Your task to perform on an android device: Open Google Maps and go to "Timeline" Image 0: 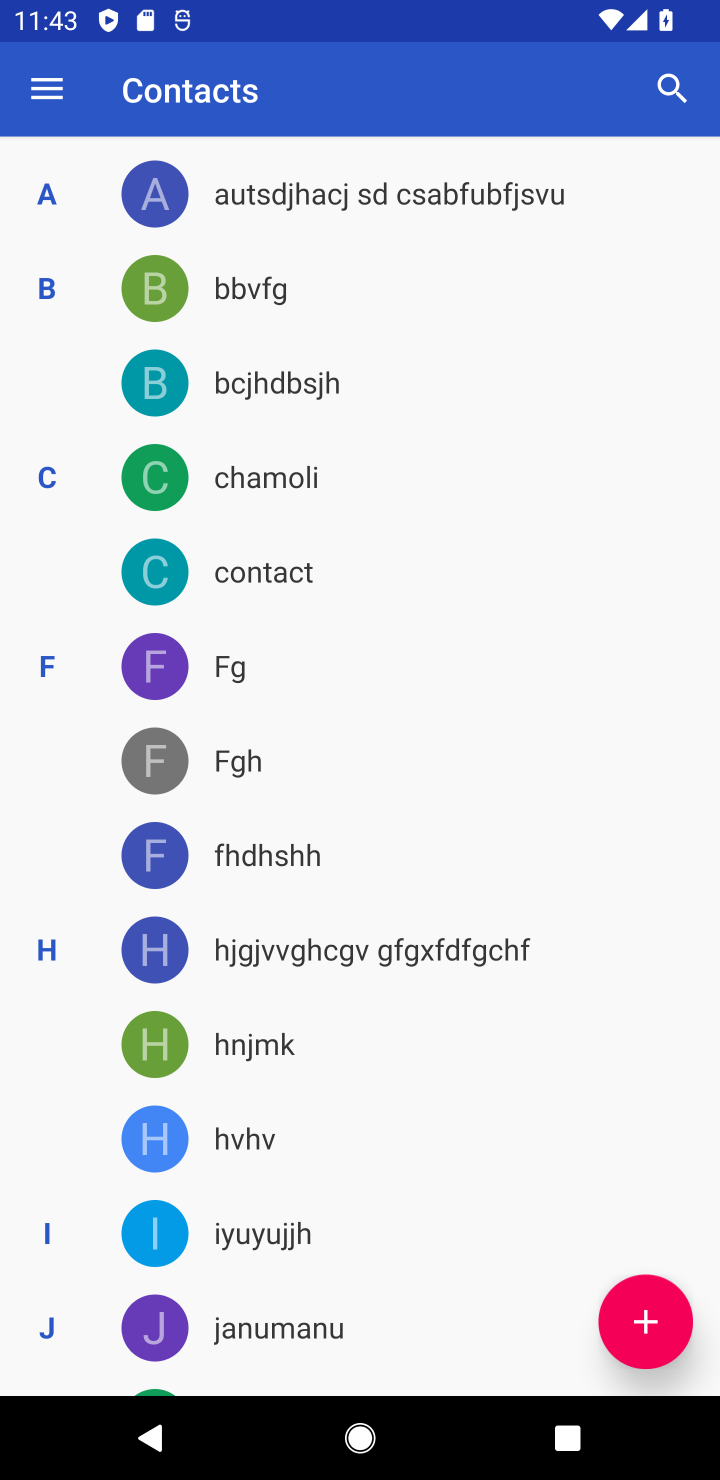
Step 0: press home button
Your task to perform on an android device: Open Google Maps and go to "Timeline" Image 1: 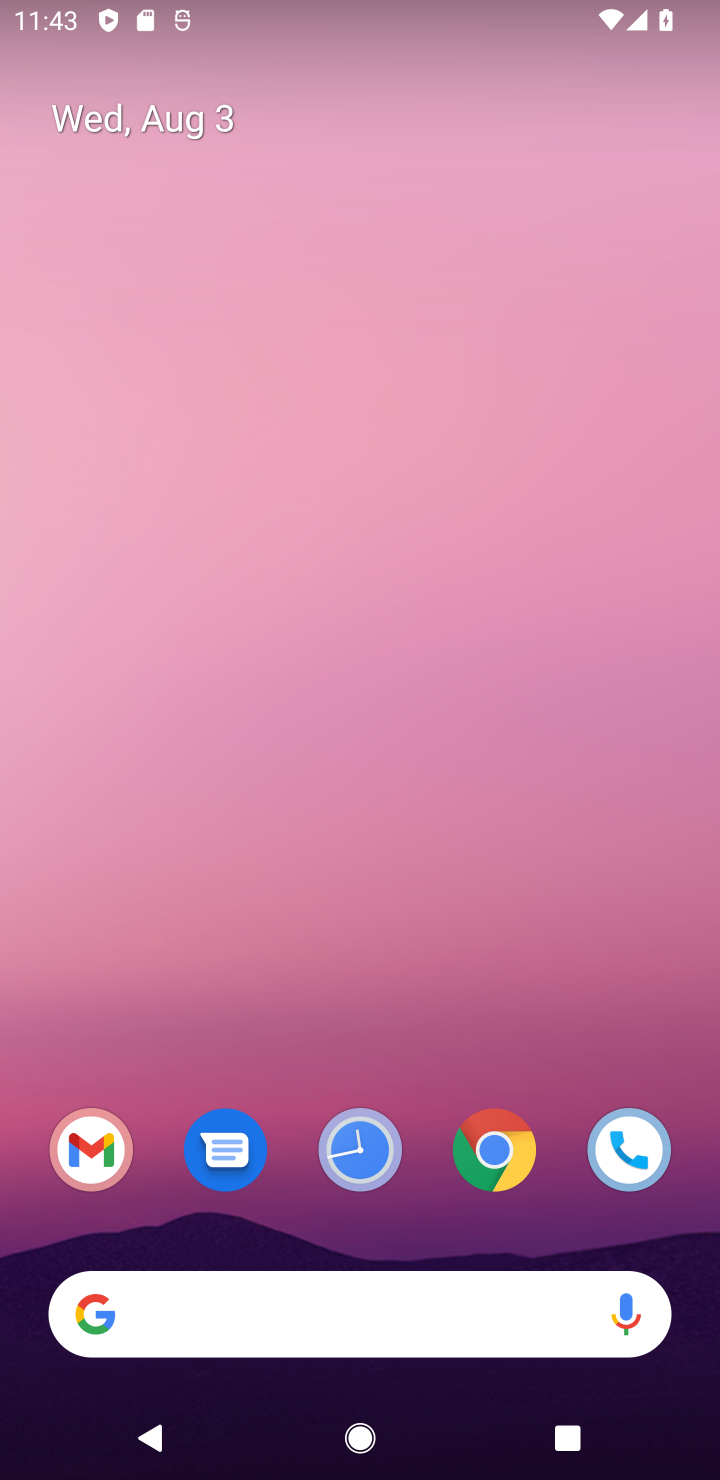
Step 1: drag from (549, 1076) to (549, 255)
Your task to perform on an android device: Open Google Maps and go to "Timeline" Image 2: 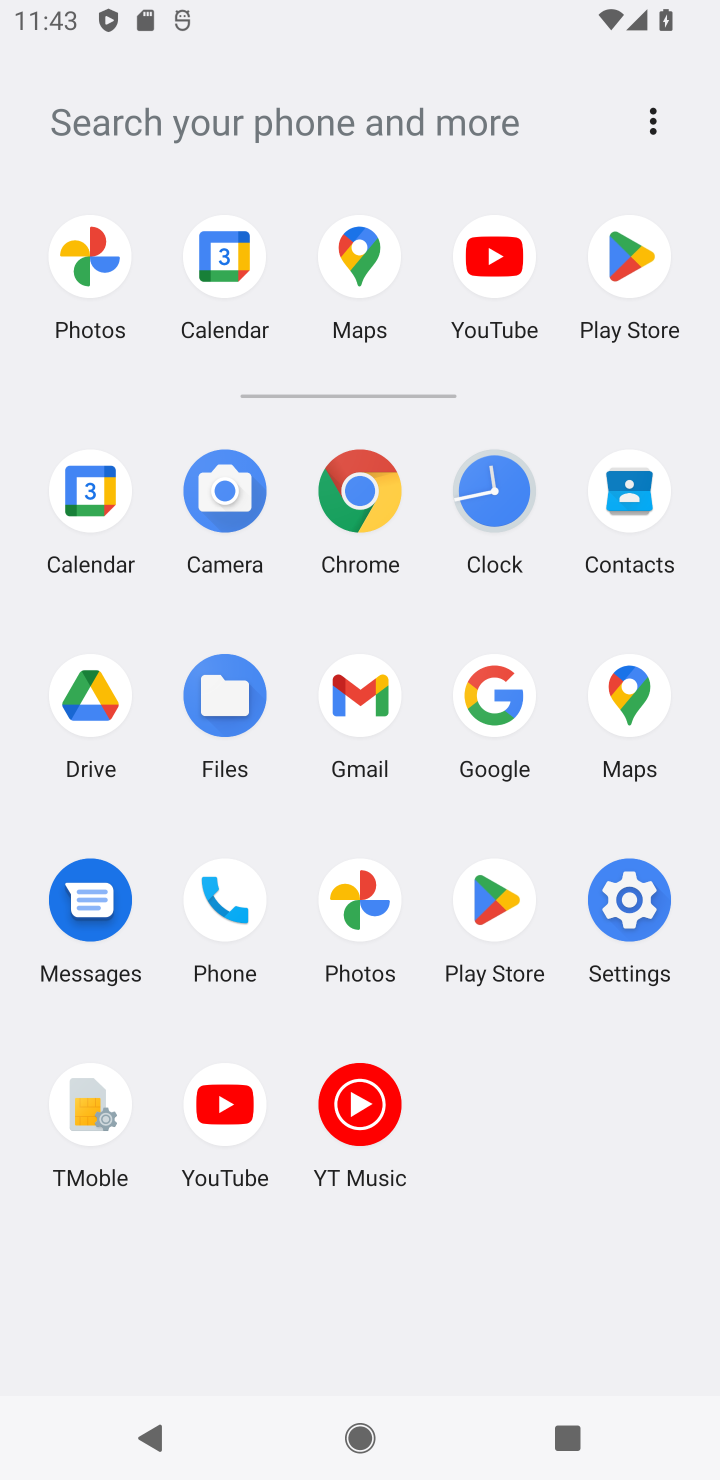
Step 2: click (629, 695)
Your task to perform on an android device: Open Google Maps and go to "Timeline" Image 3: 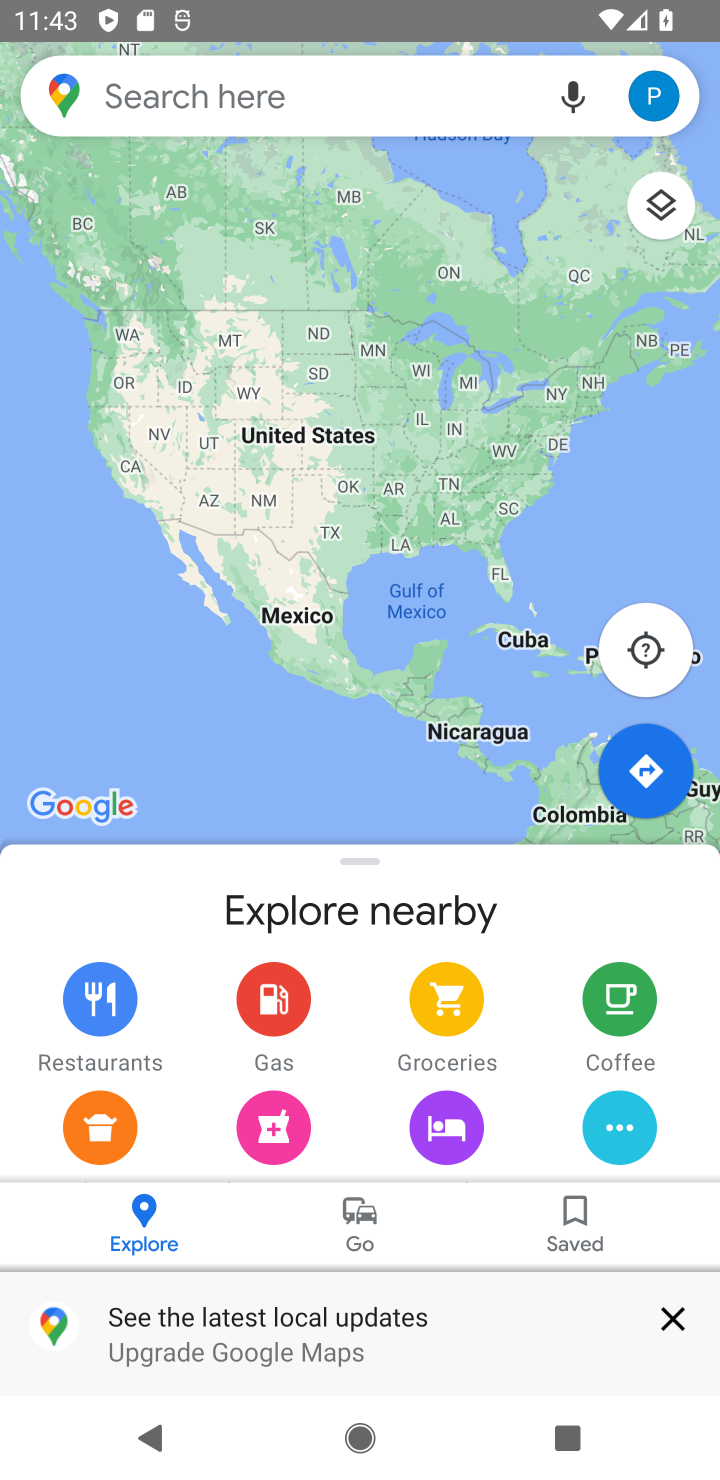
Step 3: click (643, 95)
Your task to perform on an android device: Open Google Maps and go to "Timeline" Image 4: 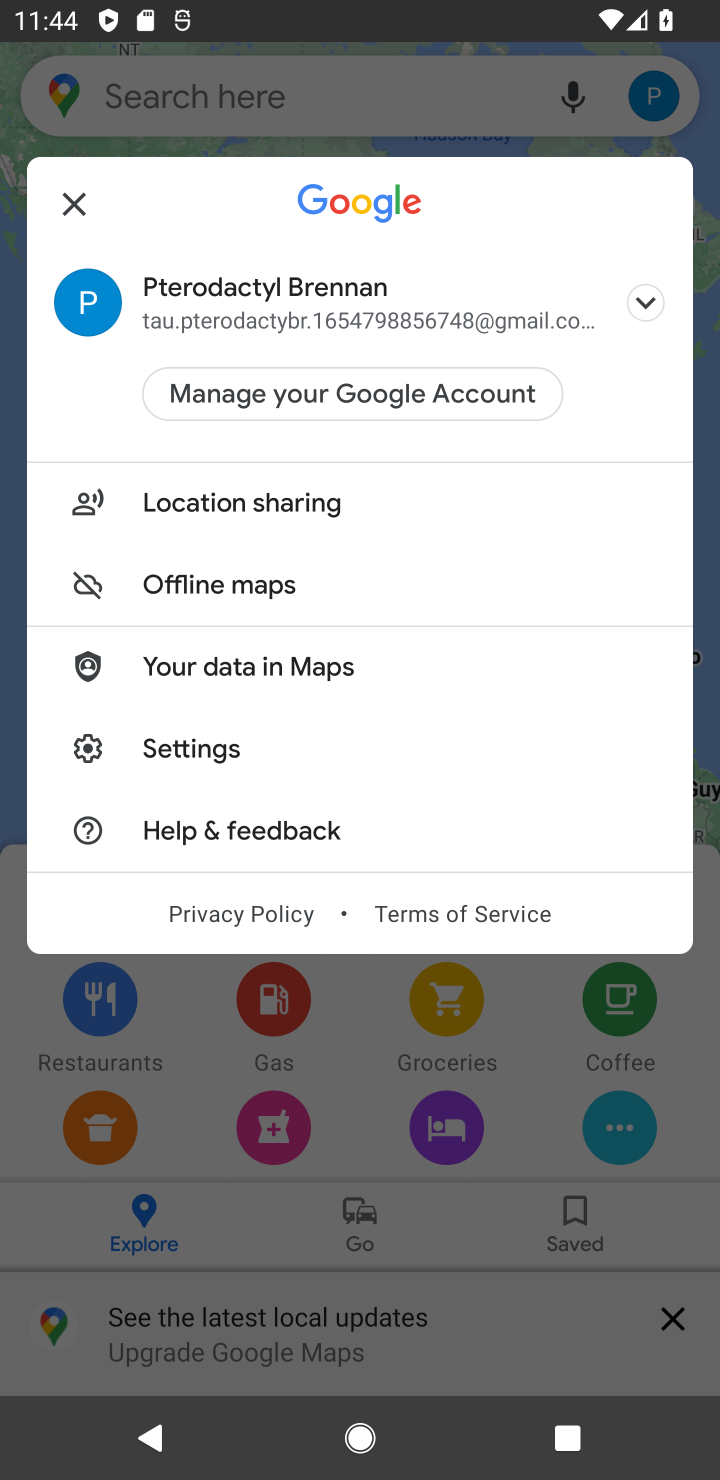
Step 4: click (217, 753)
Your task to perform on an android device: Open Google Maps and go to "Timeline" Image 5: 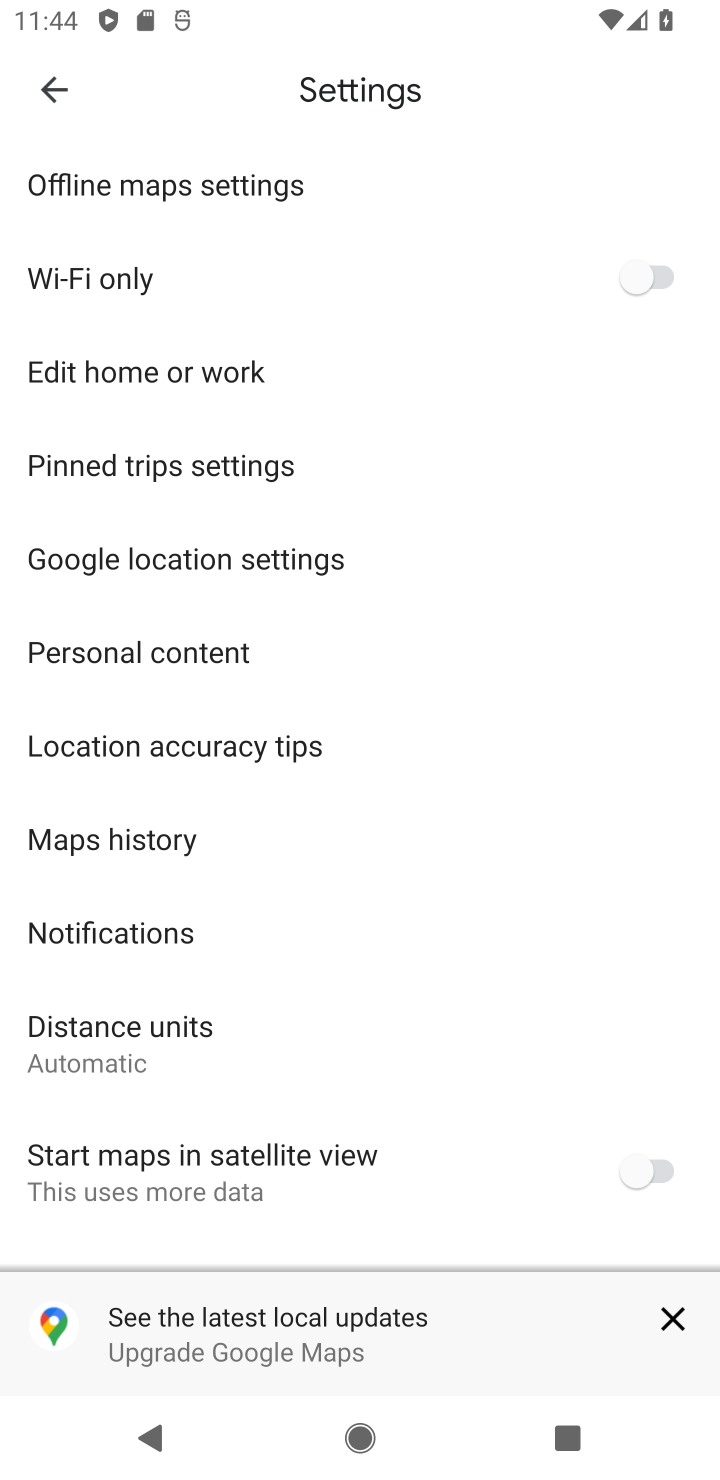
Step 5: task complete